Your task to perform on an android device: Open eBay Image 0: 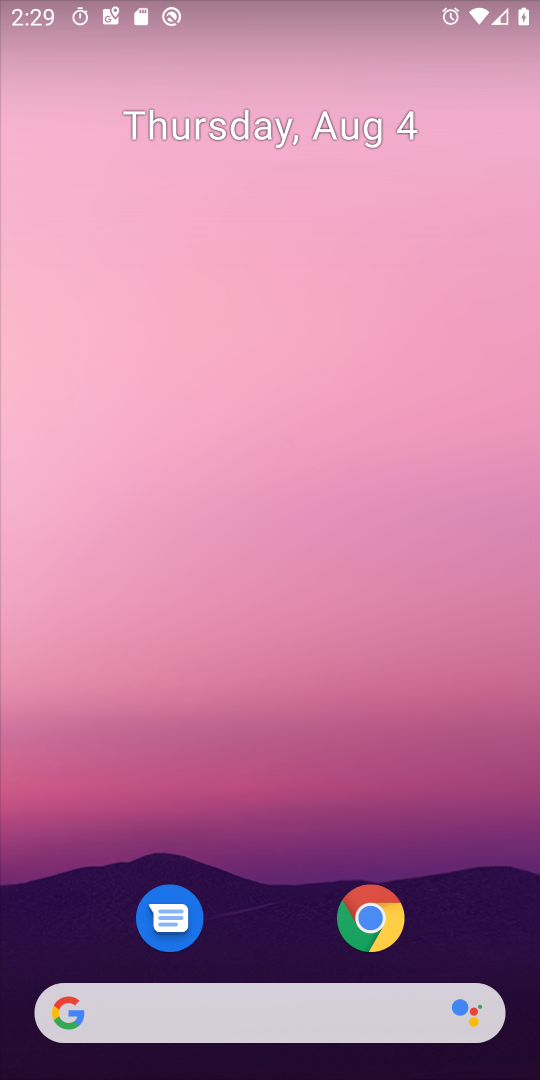
Step 0: click (272, 905)
Your task to perform on an android device: Open eBay Image 1: 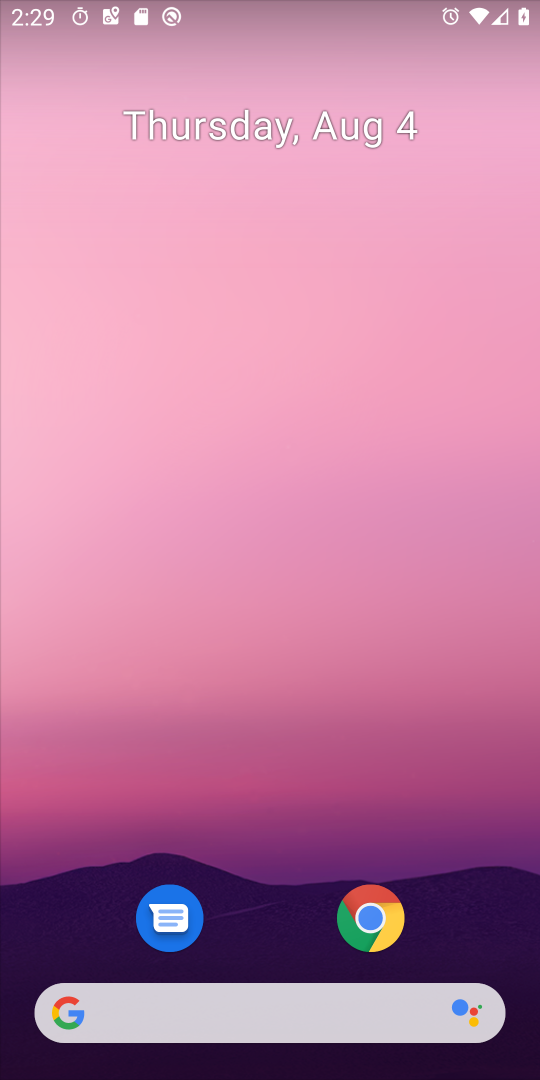
Step 1: click (391, 932)
Your task to perform on an android device: Open eBay Image 2: 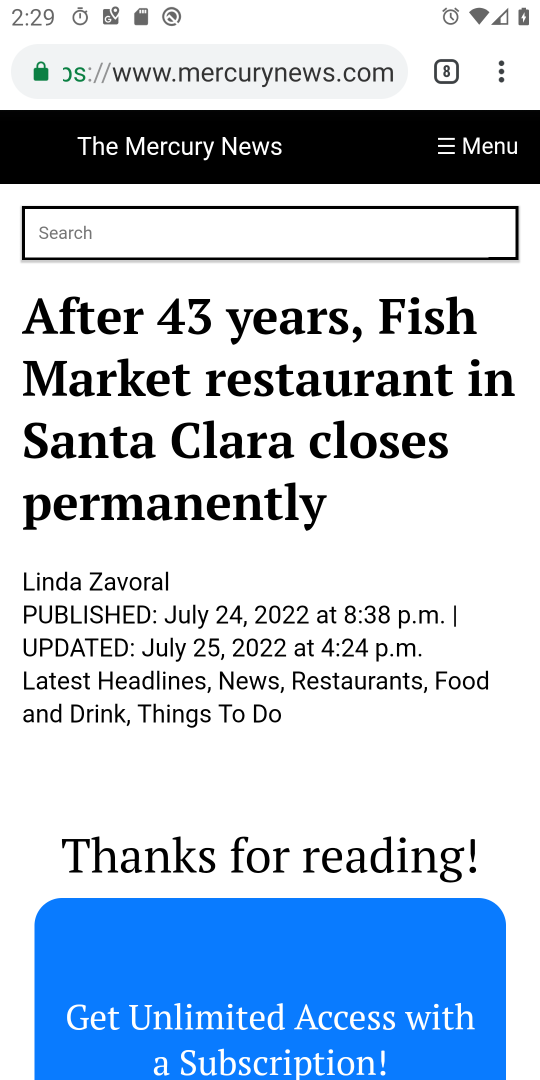
Step 2: click (455, 54)
Your task to perform on an android device: Open eBay Image 3: 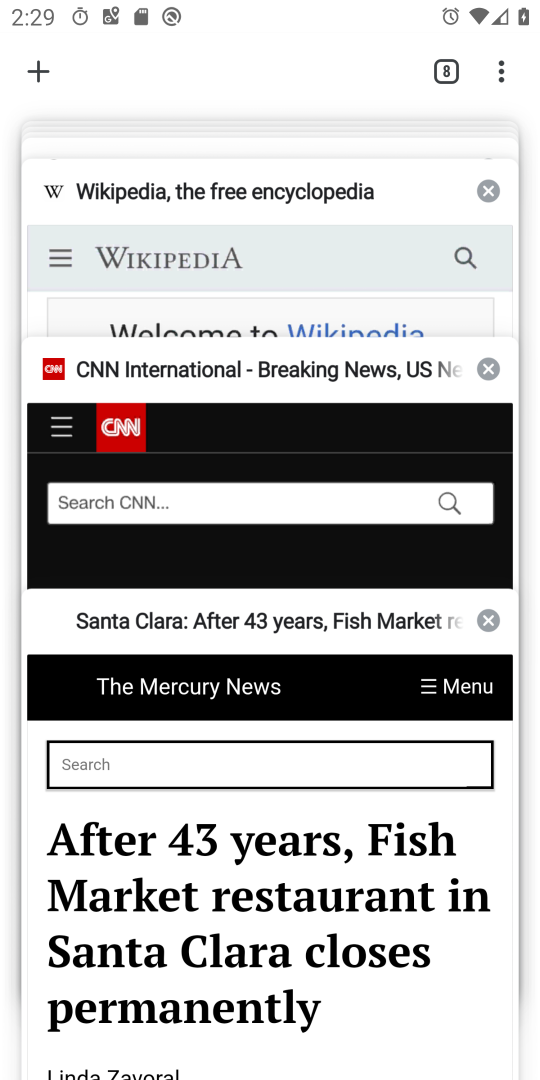
Step 3: click (27, 77)
Your task to perform on an android device: Open eBay Image 4: 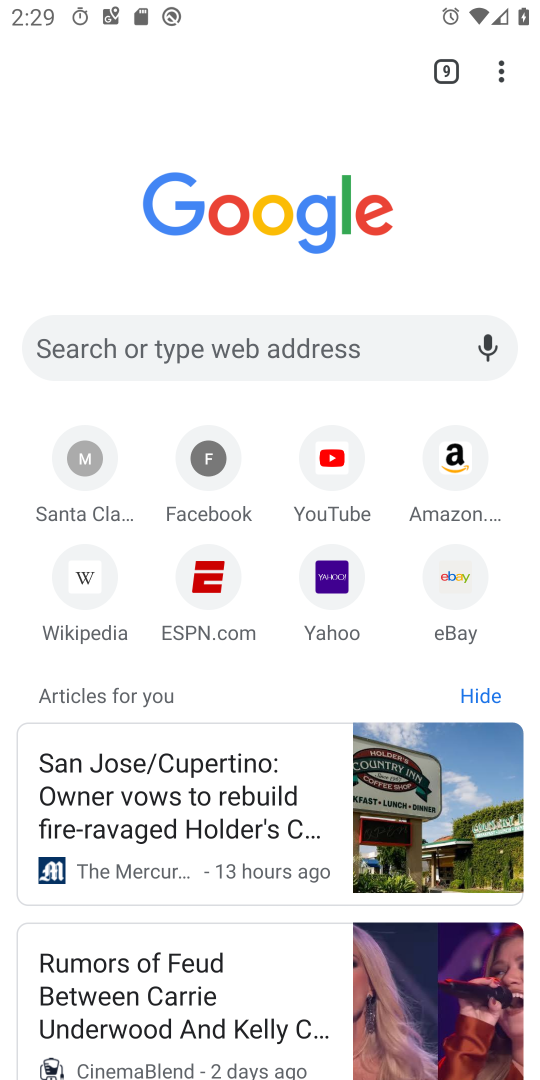
Step 4: type " eBay"
Your task to perform on an android device: Open eBay Image 5: 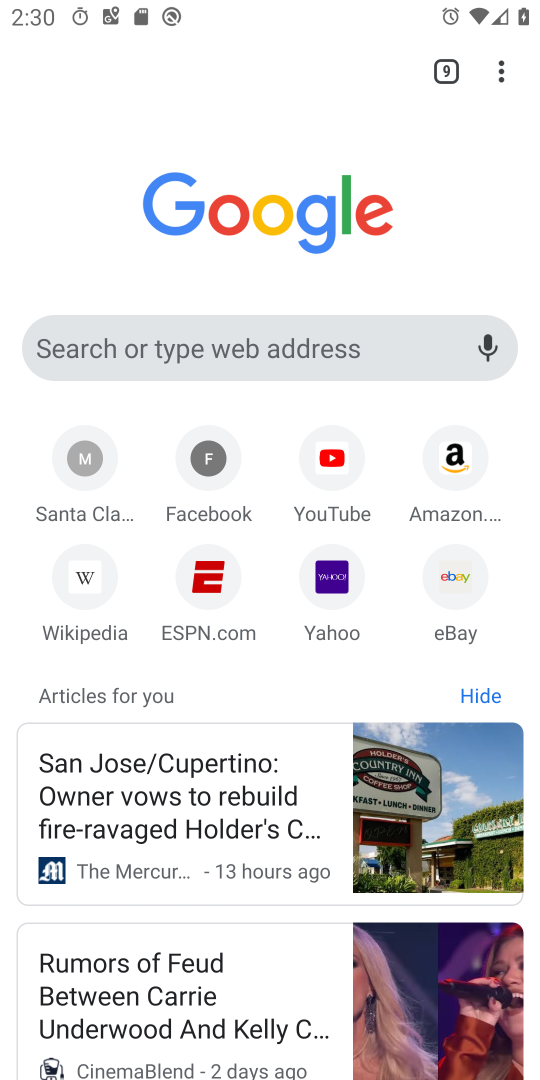
Step 5: click (180, 352)
Your task to perform on an android device: Open eBay Image 6: 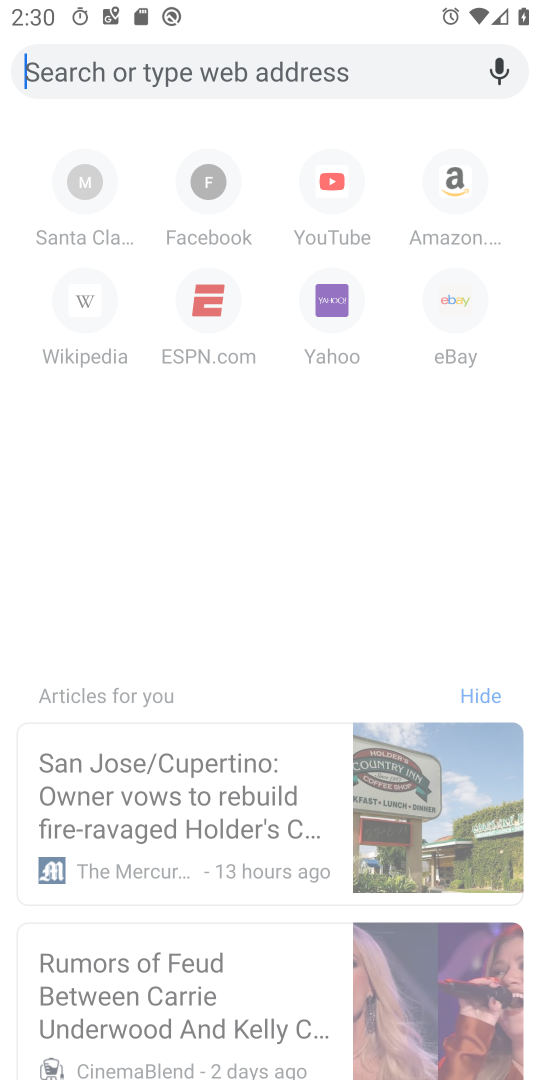
Step 6: click (430, 570)
Your task to perform on an android device: Open eBay Image 7: 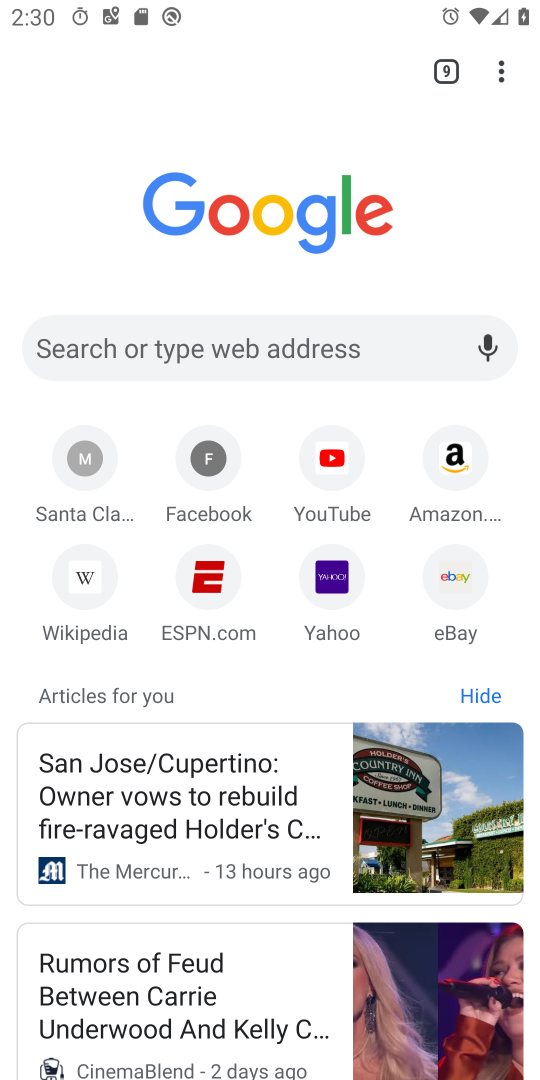
Step 7: click (455, 325)
Your task to perform on an android device: Open eBay Image 8: 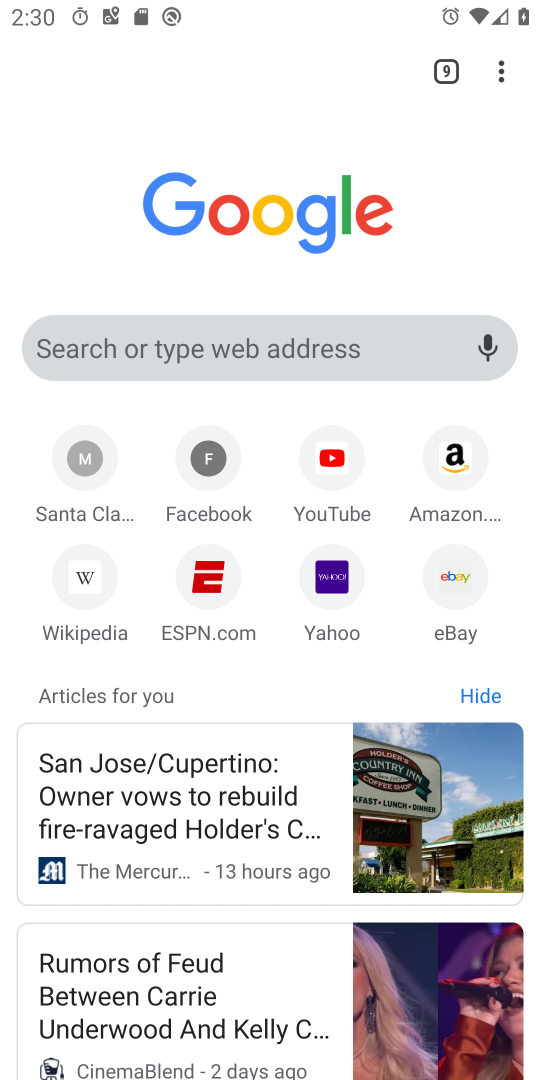
Step 8: click (462, 572)
Your task to perform on an android device: Open eBay Image 9: 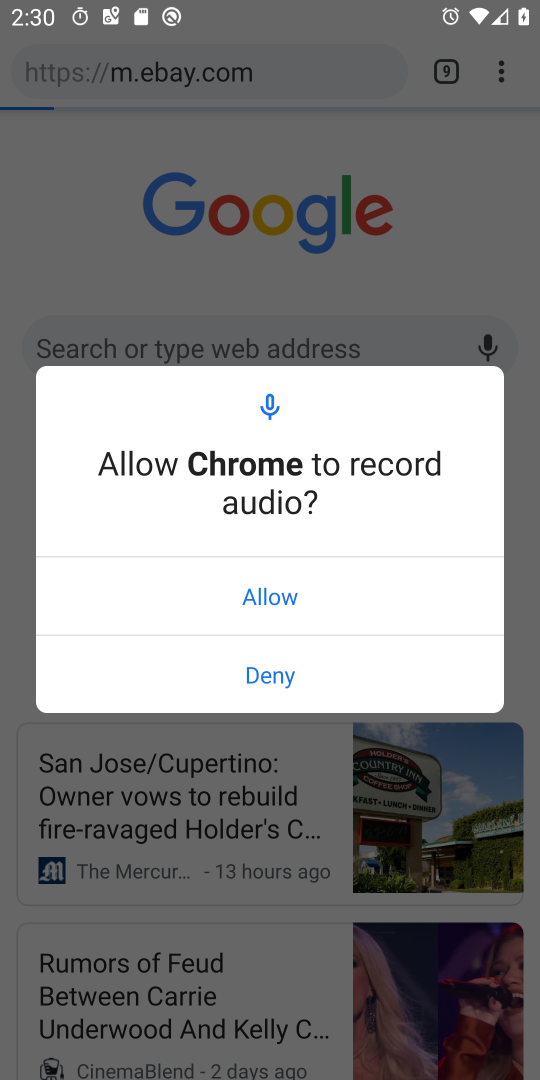
Step 9: task complete